Your task to perform on an android device: turn off priority inbox in the gmail app Image 0: 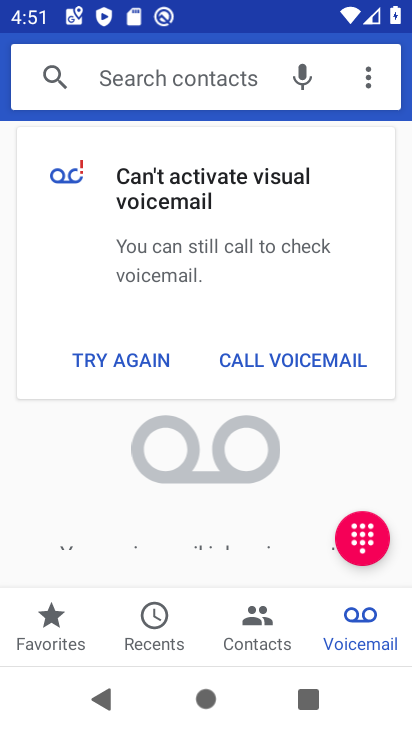
Step 0: press home button
Your task to perform on an android device: turn off priority inbox in the gmail app Image 1: 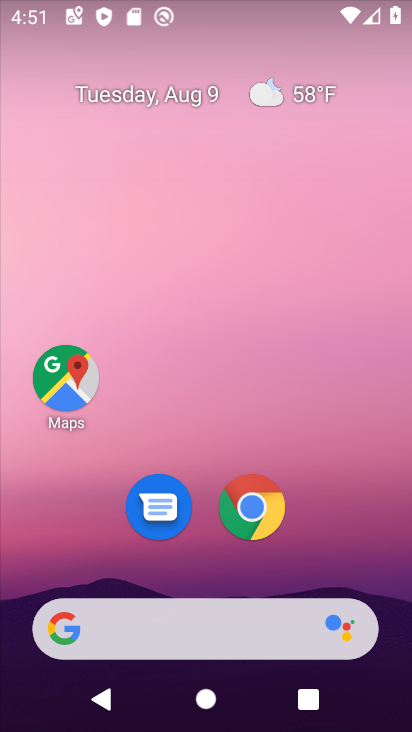
Step 1: drag from (202, 563) to (293, 0)
Your task to perform on an android device: turn off priority inbox in the gmail app Image 2: 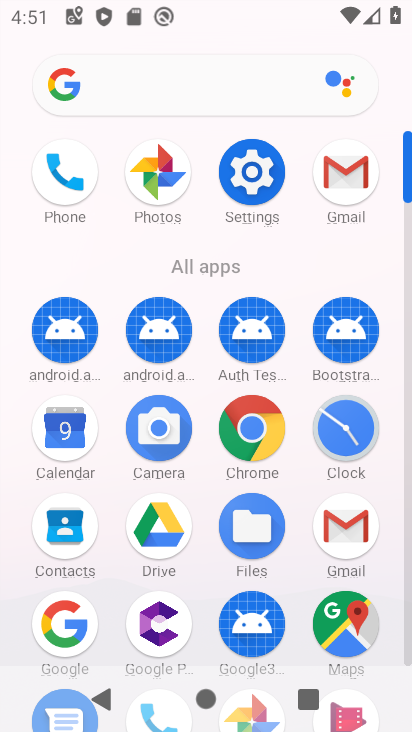
Step 2: click (342, 185)
Your task to perform on an android device: turn off priority inbox in the gmail app Image 3: 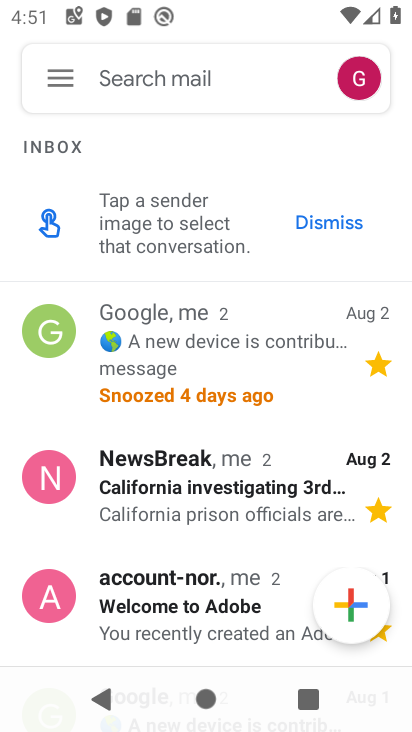
Step 3: click (51, 80)
Your task to perform on an android device: turn off priority inbox in the gmail app Image 4: 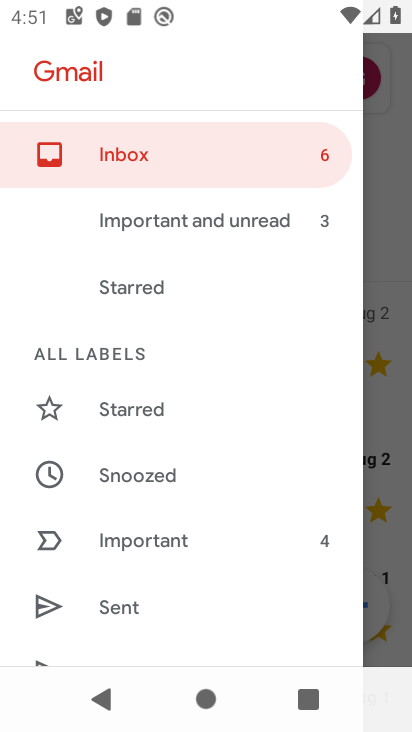
Step 4: drag from (156, 567) to (102, 186)
Your task to perform on an android device: turn off priority inbox in the gmail app Image 5: 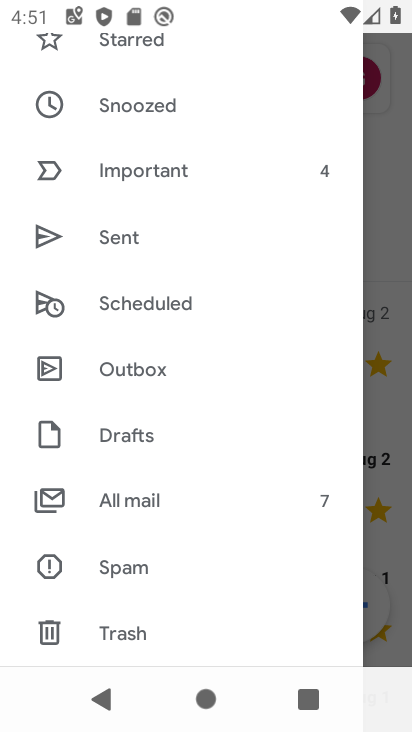
Step 5: drag from (176, 583) to (167, 384)
Your task to perform on an android device: turn off priority inbox in the gmail app Image 6: 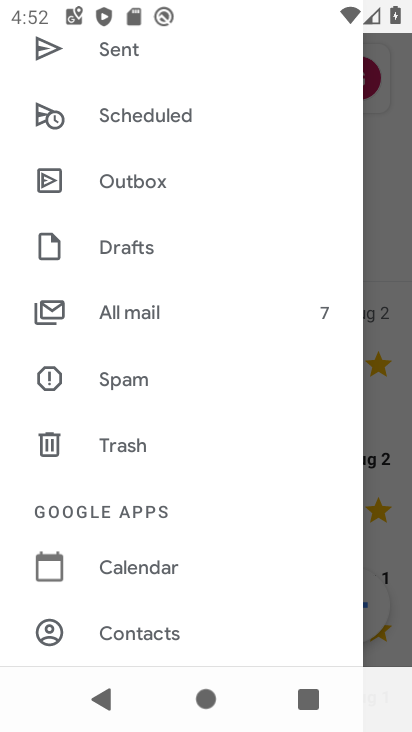
Step 6: drag from (223, 593) to (223, 322)
Your task to perform on an android device: turn off priority inbox in the gmail app Image 7: 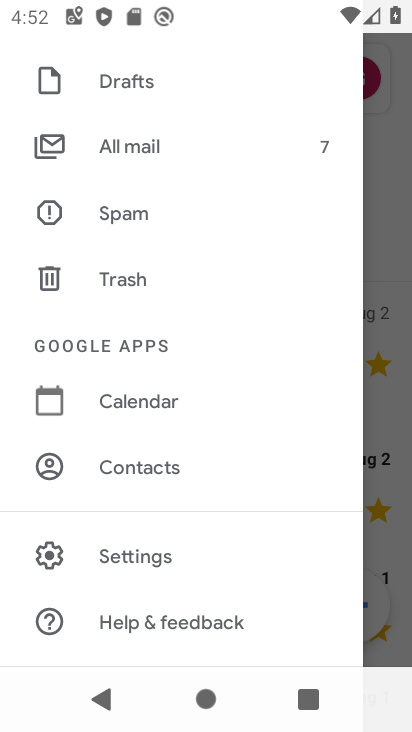
Step 7: click (159, 559)
Your task to perform on an android device: turn off priority inbox in the gmail app Image 8: 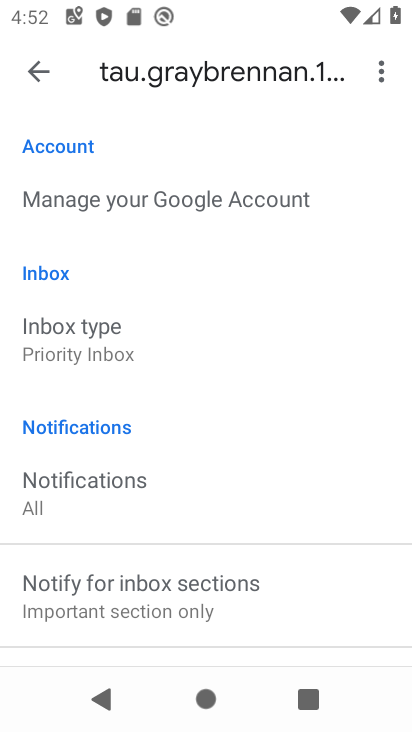
Step 8: click (102, 323)
Your task to perform on an android device: turn off priority inbox in the gmail app Image 9: 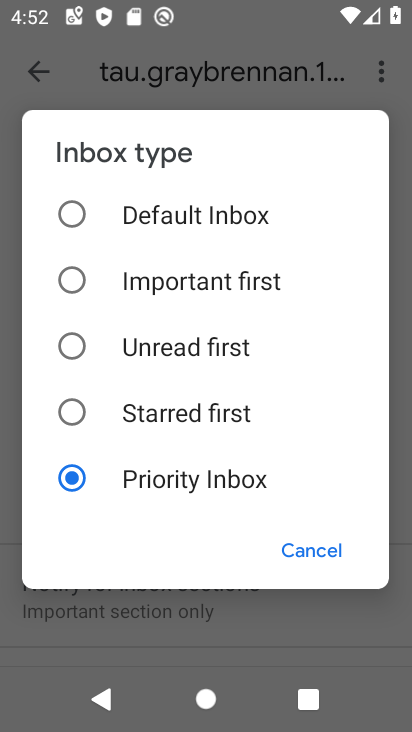
Step 9: click (183, 222)
Your task to perform on an android device: turn off priority inbox in the gmail app Image 10: 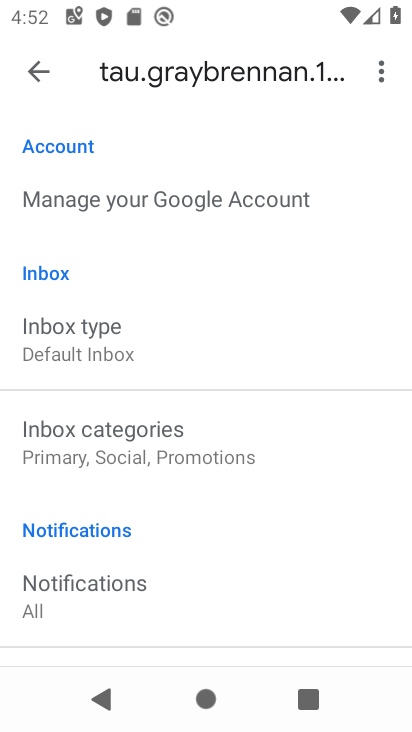
Step 10: task complete